Your task to perform on an android device: Open internet settings Image 0: 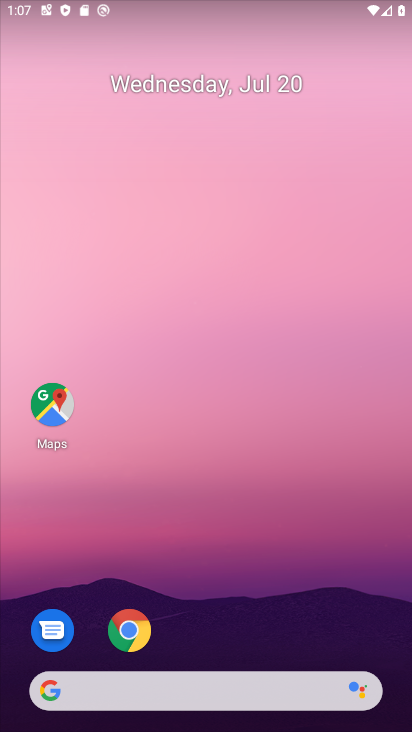
Step 0: drag from (211, 690) to (204, 378)
Your task to perform on an android device: Open internet settings Image 1: 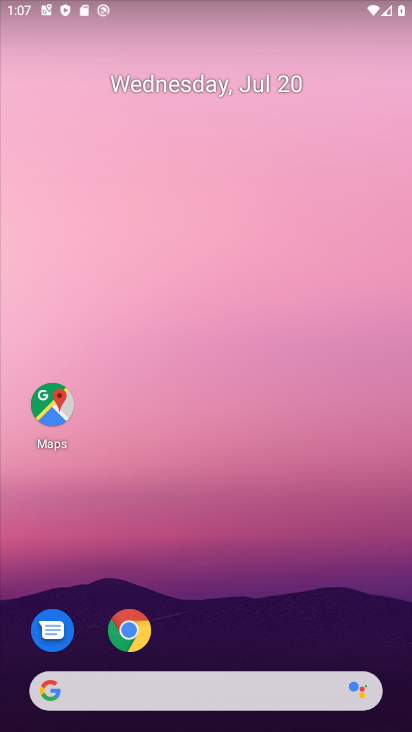
Step 1: drag from (276, 692) to (293, 147)
Your task to perform on an android device: Open internet settings Image 2: 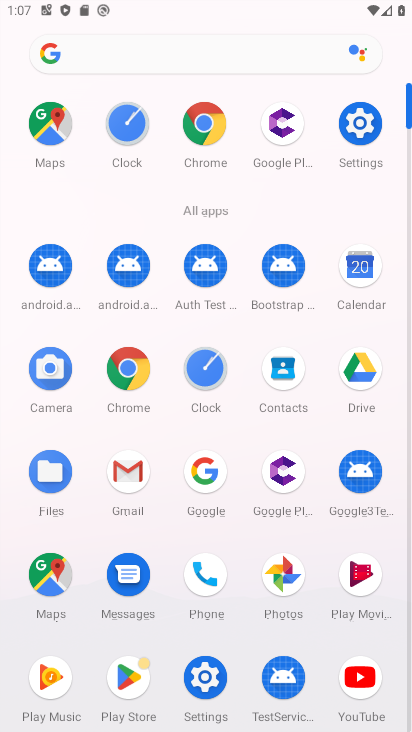
Step 2: click (339, 131)
Your task to perform on an android device: Open internet settings Image 3: 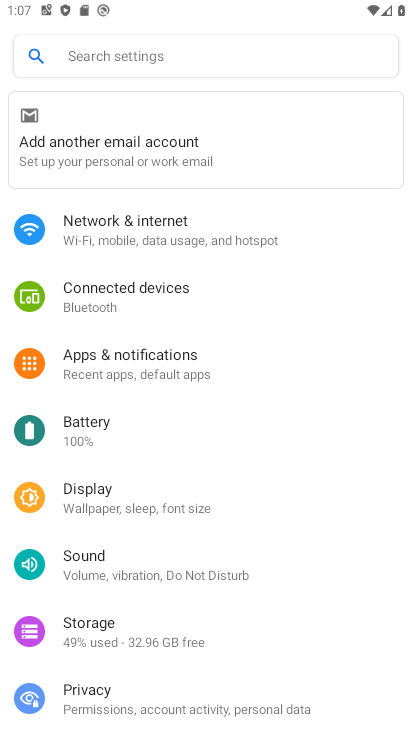
Step 3: click (169, 226)
Your task to perform on an android device: Open internet settings Image 4: 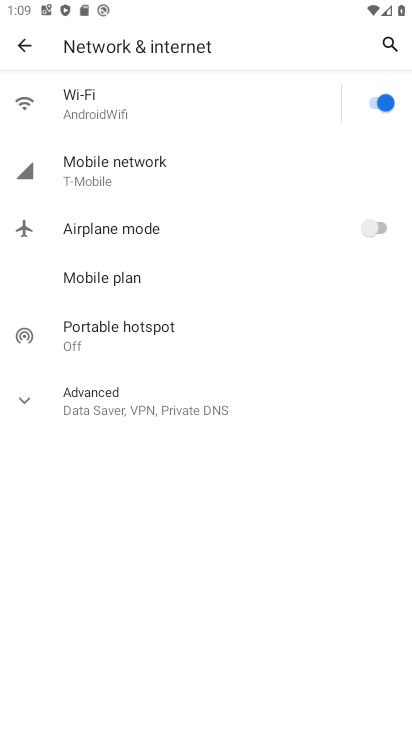
Step 4: task complete